Your task to perform on an android device: Go to Wikipedia Image 0: 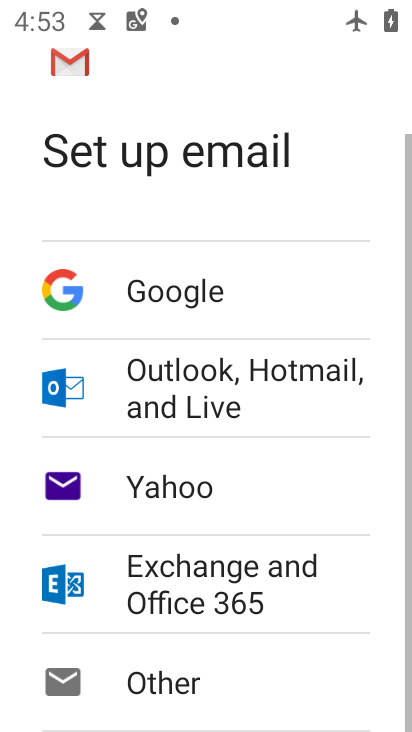
Step 0: press home button
Your task to perform on an android device: Go to Wikipedia Image 1: 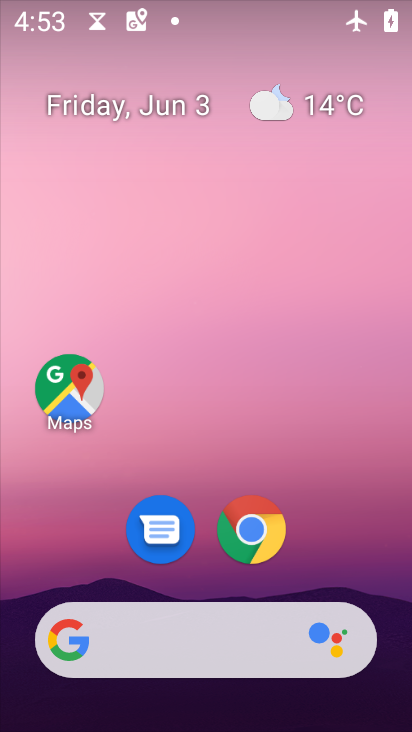
Step 1: drag from (344, 566) to (267, 21)
Your task to perform on an android device: Go to Wikipedia Image 2: 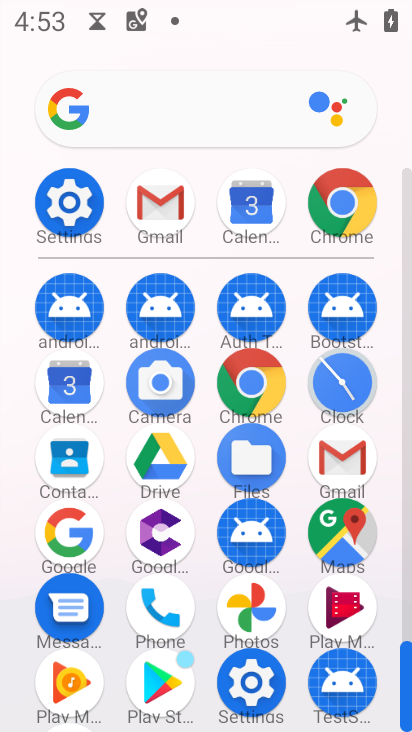
Step 2: click (350, 207)
Your task to perform on an android device: Go to Wikipedia Image 3: 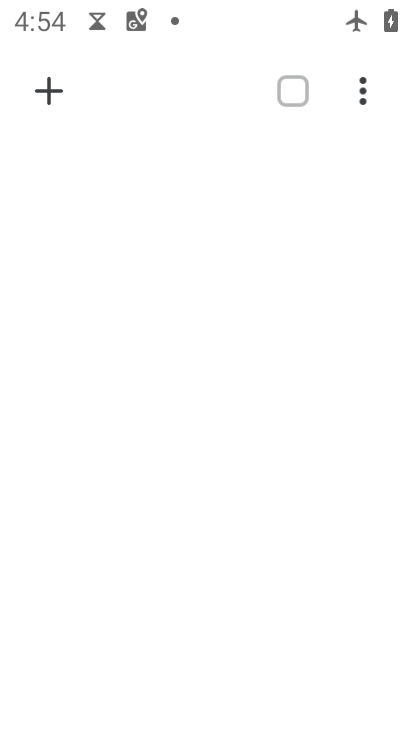
Step 3: click (51, 97)
Your task to perform on an android device: Go to Wikipedia Image 4: 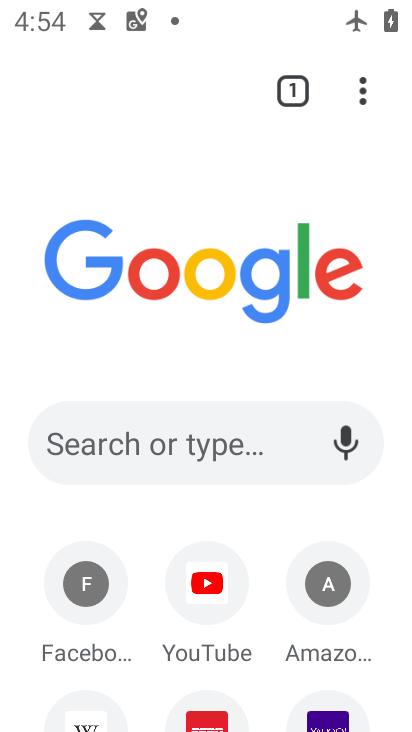
Step 4: drag from (383, 547) to (379, 150)
Your task to perform on an android device: Go to Wikipedia Image 5: 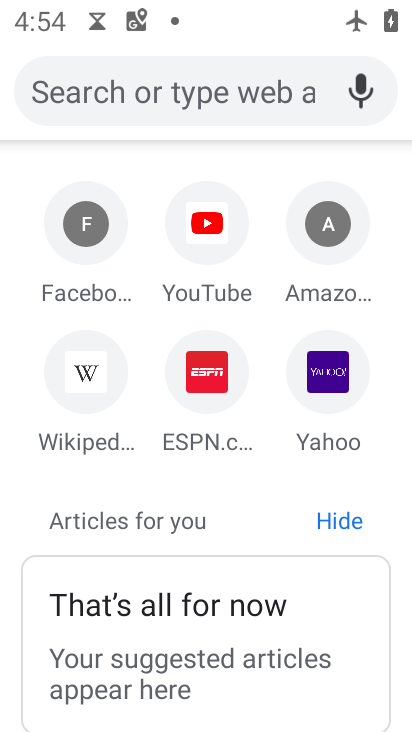
Step 5: click (66, 402)
Your task to perform on an android device: Go to Wikipedia Image 6: 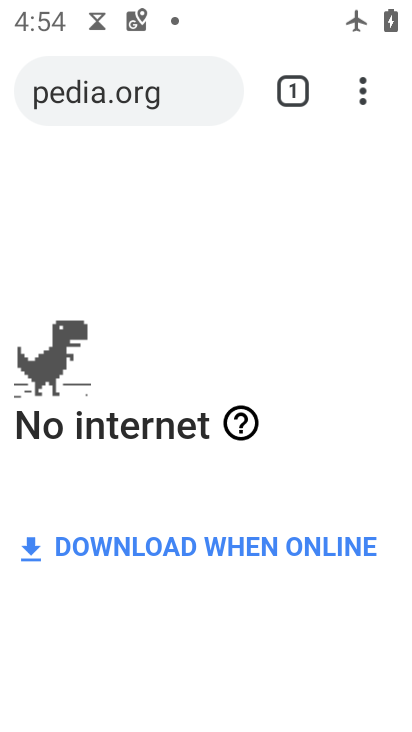
Step 6: task complete